Your task to perform on an android device: toggle wifi Image 0: 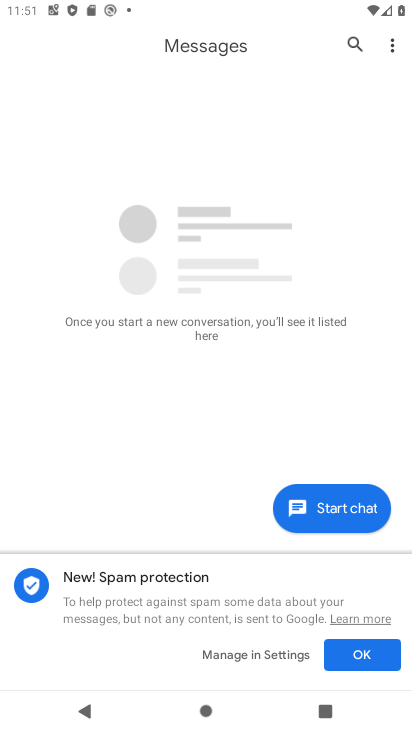
Step 0: press home button
Your task to perform on an android device: toggle wifi Image 1: 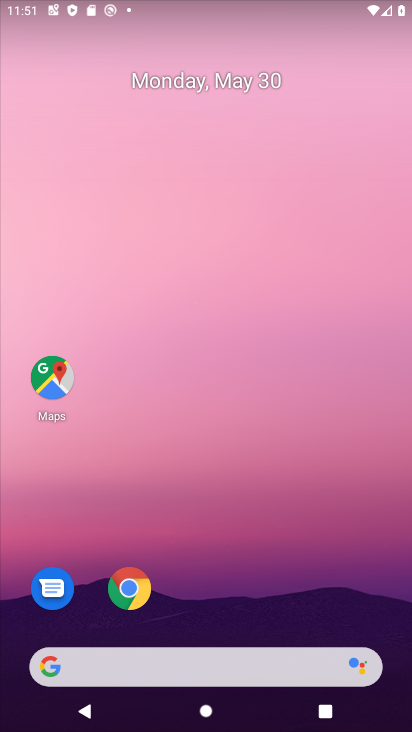
Step 1: drag from (202, 618) to (258, 141)
Your task to perform on an android device: toggle wifi Image 2: 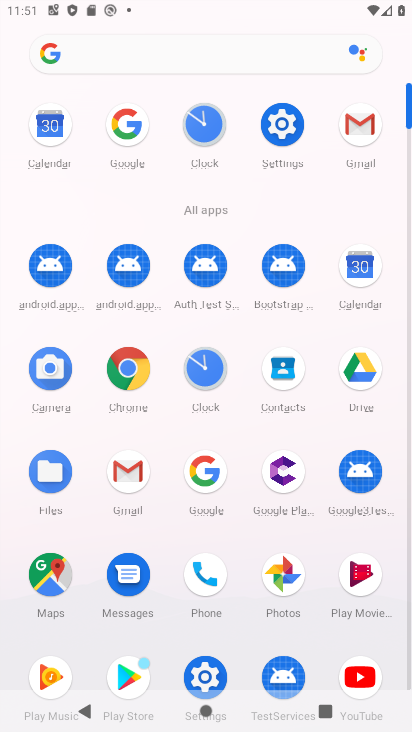
Step 2: click (284, 117)
Your task to perform on an android device: toggle wifi Image 3: 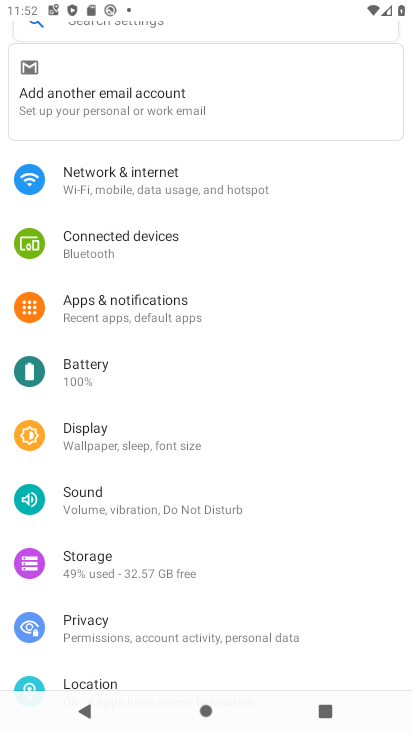
Step 3: click (184, 174)
Your task to perform on an android device: toggle wifi Image 4: 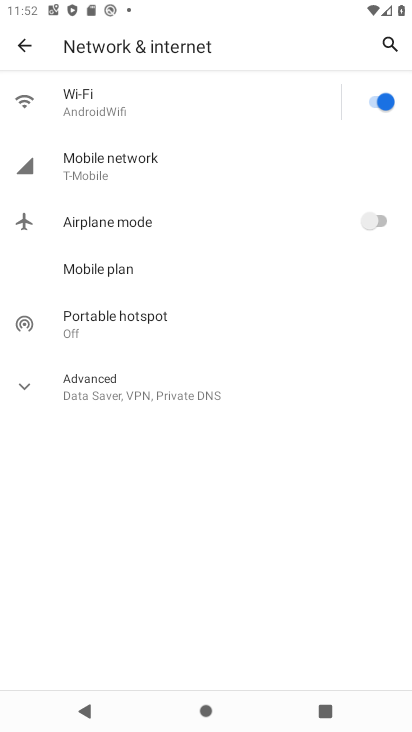
Step 4: click (187, 104)
Your task to perform on an android device: toggle wifi Image 5: 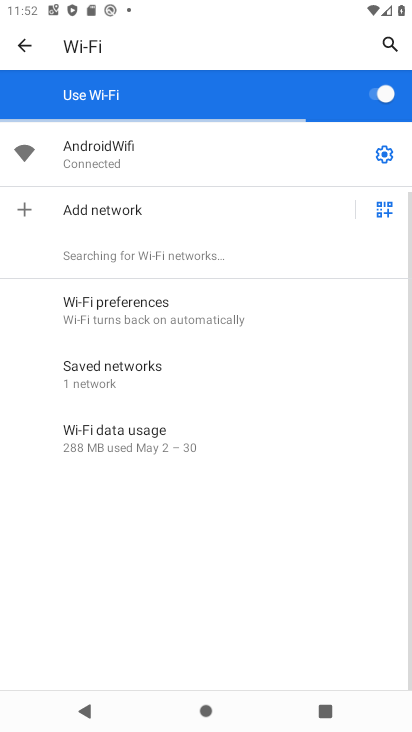
Step 5: click (377, 95)
Your task to perform on an android device: toggle wifi Image 6: 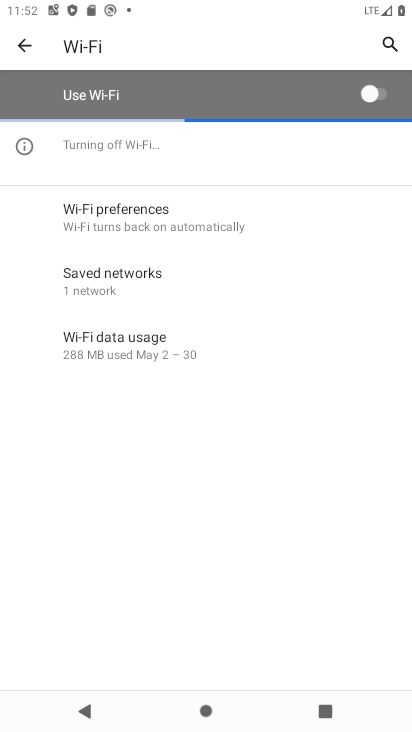
Step 6: task complete